Your task to perform on an android device: check google app version Image 0: 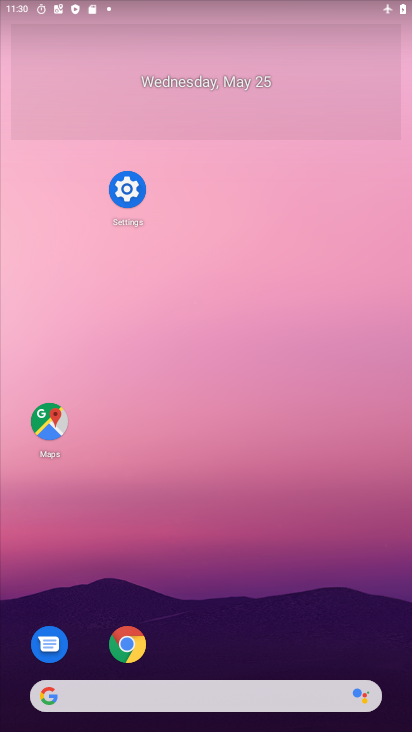
Step 0: drag from (228, 631) to (186, 126)
Your task to perform on an android device: check google app version Image 1: 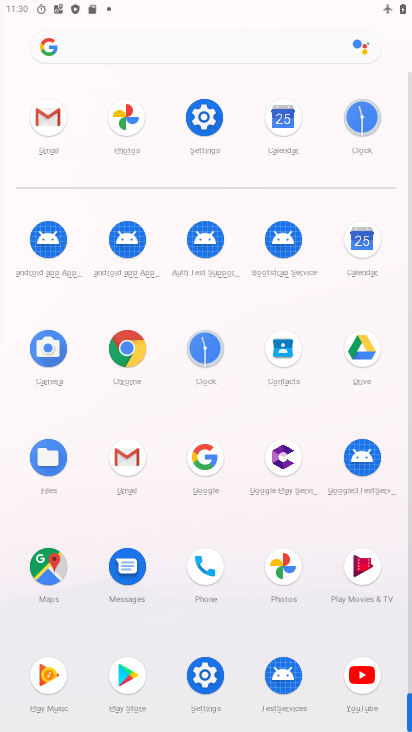
Step 1: click (207, 455)
Your task to perform on an android device: check google app version Image 2: 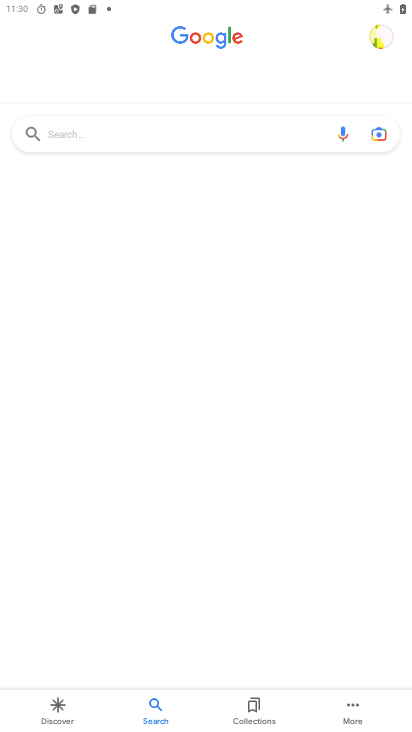
Step 2: click (357, 706)
Your task to perform on an android device: check google app version Image 3: 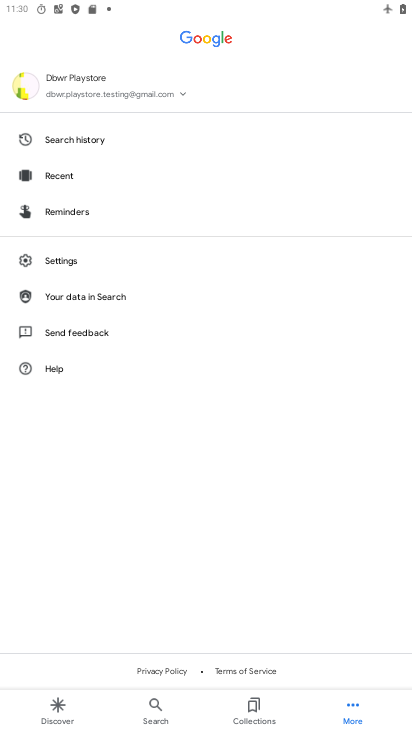
Step 3: click (51, 255)
Your task to perform on an android device: check google app version Image 4: 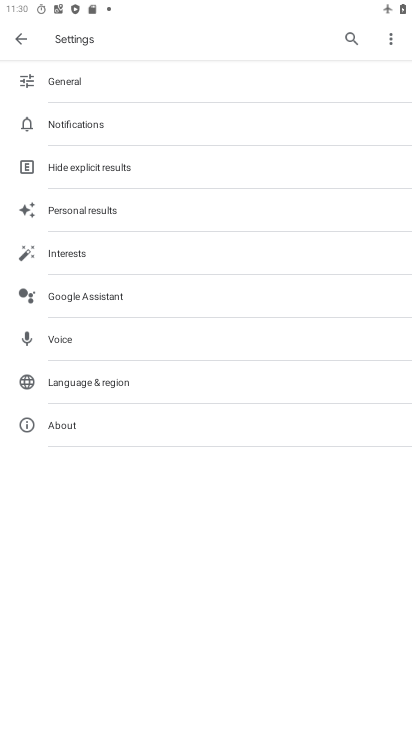
Step 4: click (83, 413)
Your task to perform on an android device: check google app version Image 5: 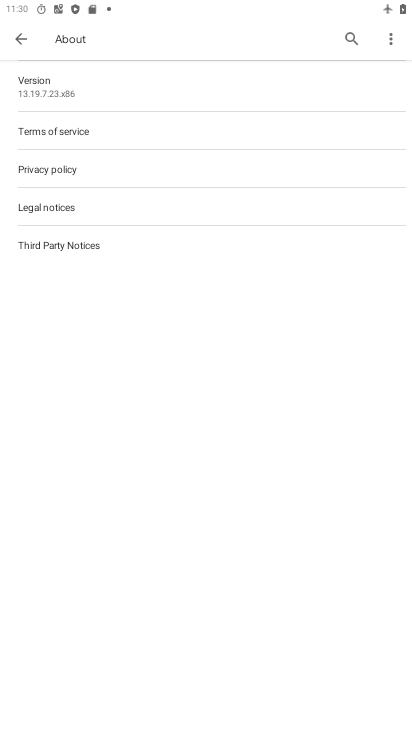
Step 5: click (210, 73)
Your task to perform on an android device: check google app version Image 6: 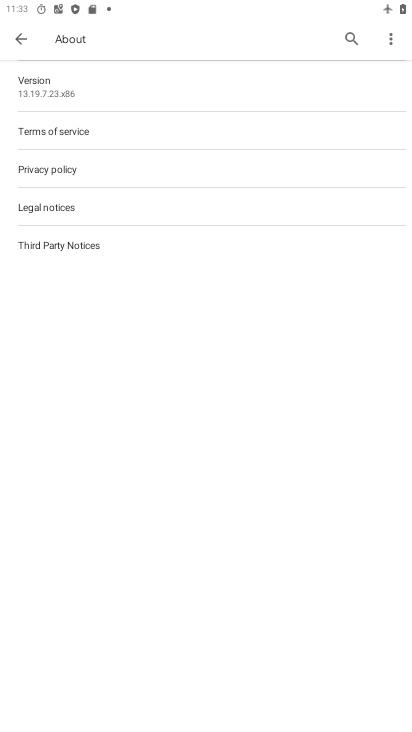
Step 6: task complete